Your task to perform on an android device: turn off wifi Image 0: 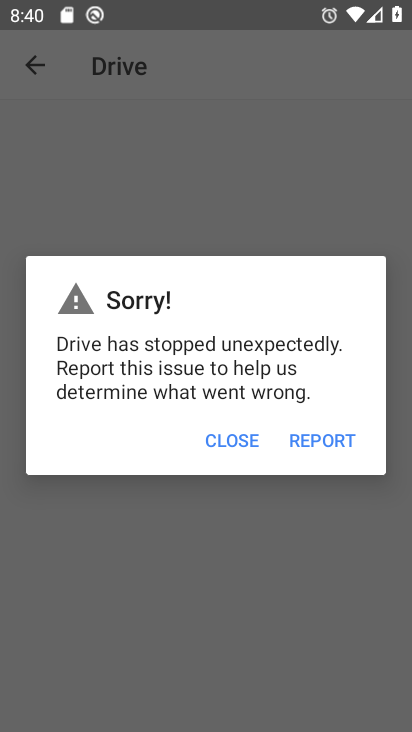
Step 0: press home button
Your task to perform on an android device: turn off wifi Image 1: 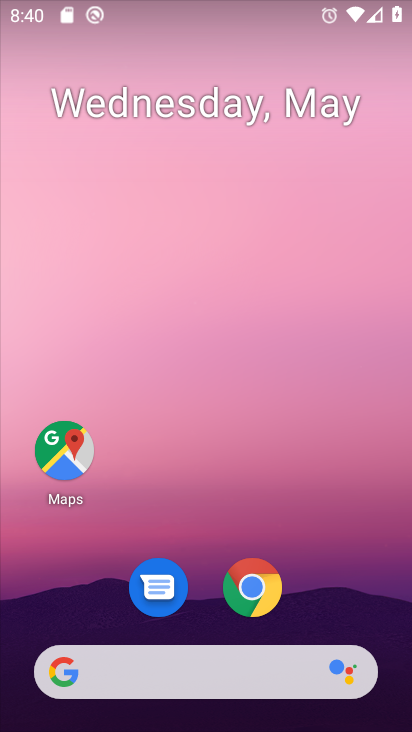
Step 1: drag from (210, 557) to (262, 15)
Your task to perform on an android device: turn off wifi Image 2: 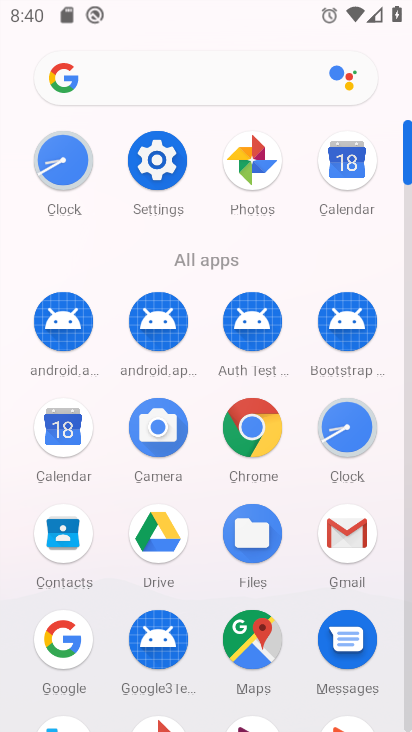
Step 2: click (178, 182)
Your task to perform on an android device: turn off wifi Image 3: 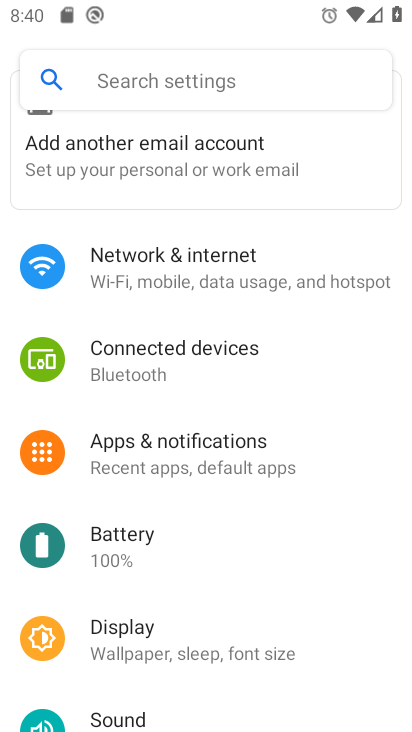
Step 3: click (189, 275)
Your task to perform on an android device: turn off wifi Image 4: 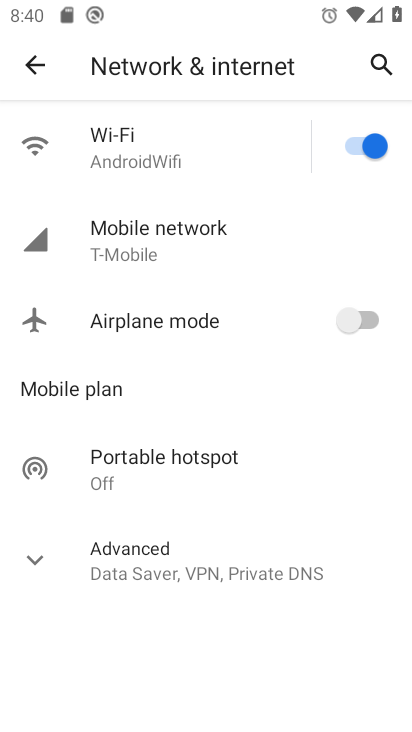
Step 4: click (348, 149)
Your task to perform on an android device: turn off wifi Image 5: 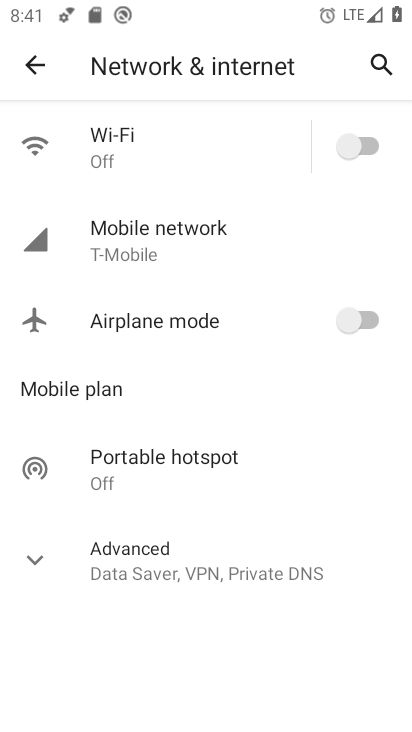
Step 5: task complete